Your task to perform on an android device: Open Android settings Image 0: 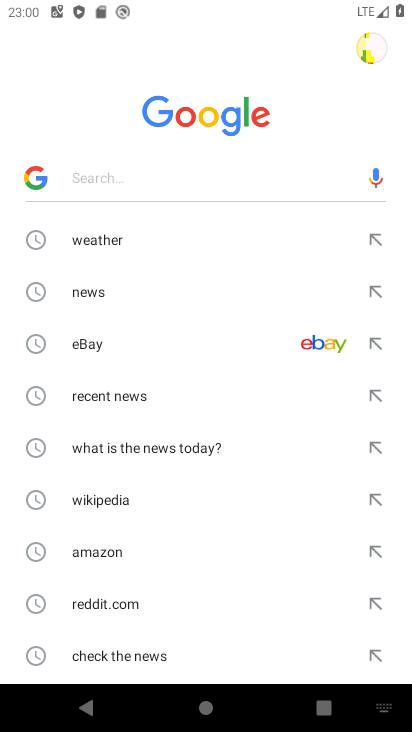
Step 0: press back button
Your task to perform on an android device: Open Android settings Image 1: 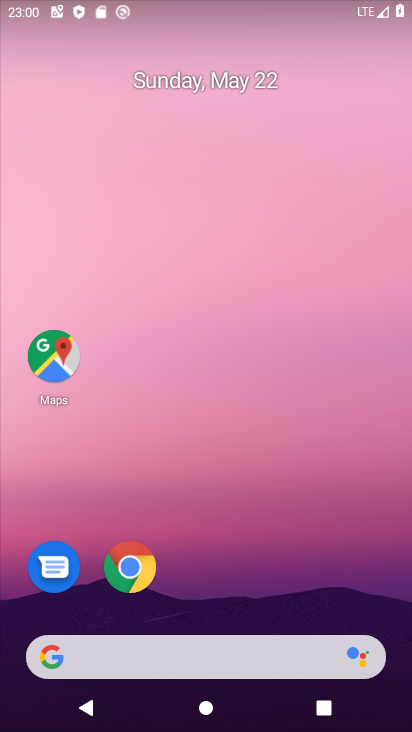
Step 1: drag from (269, 535) to (224, 14)
Your task to perform on an android device: Open Android settings Image 2: 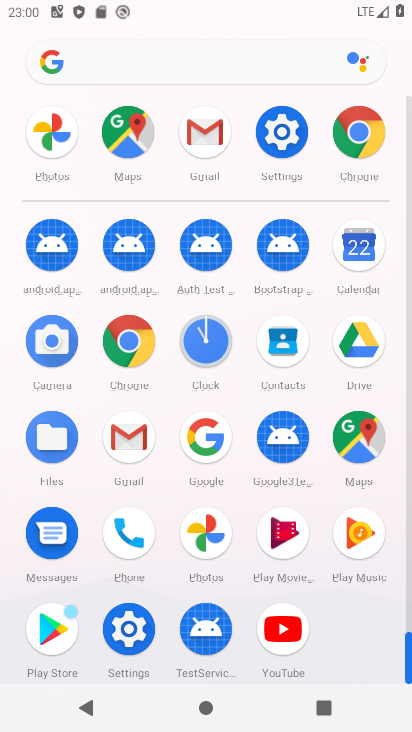
Step 2: click (125, 627)
Your task to perform on an android device: Open Android settings Image 3: 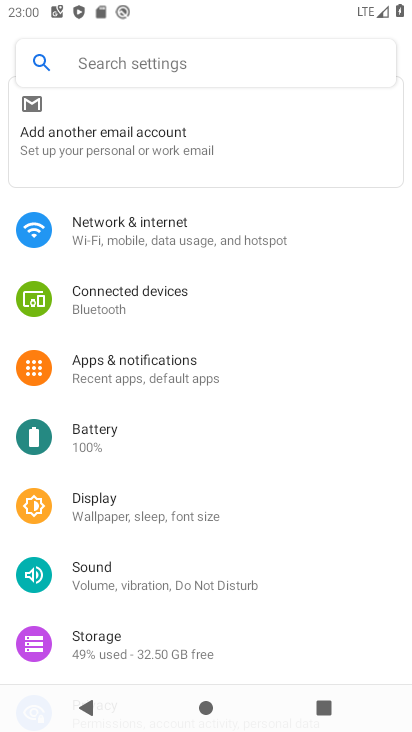
Step 3: task complete